Your task to perform on an android device: Clear all items from cart on walmart. Search for dell xps on walmart, select the first entry, and add it to the cart. Image 0: 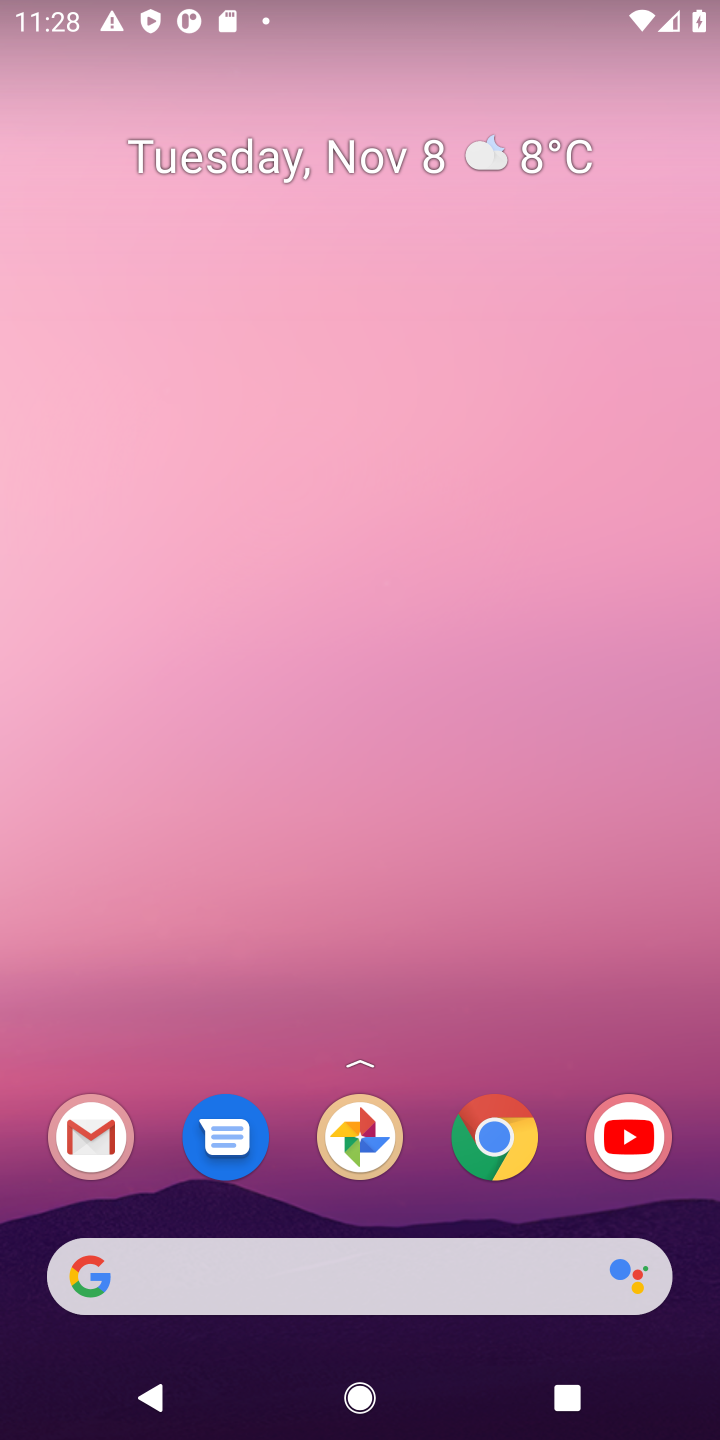
Step 0: click (477, 1129)
Your task to perform on an android device: Clear all items from cart on walmart. Search for dell xps on walmart, select the first entry, and add it to the cart. Image 1: 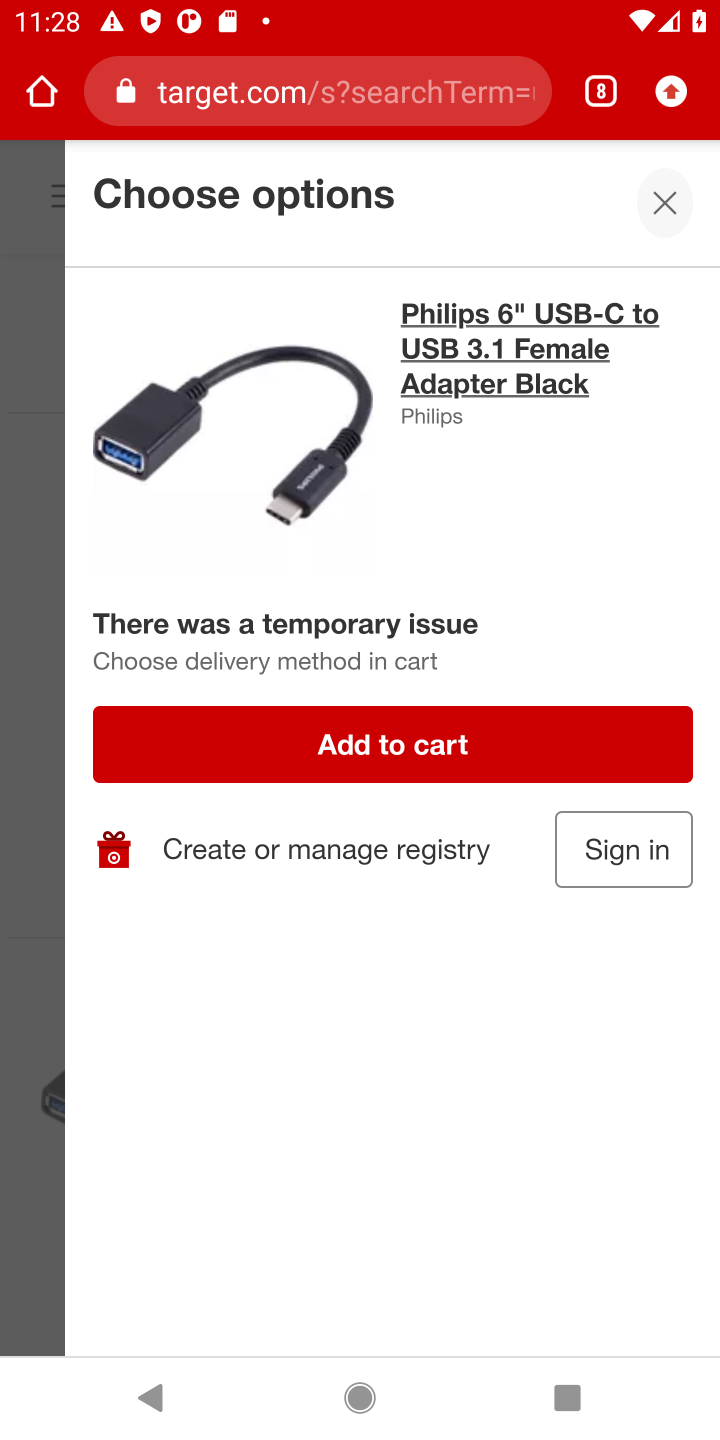
Step 1: click (600, 94)
Your task to perform on an android device: Clear all items from cart on walmart. Search for dell xps on walmart, select the first entry, and add it to the cart. Image 2: 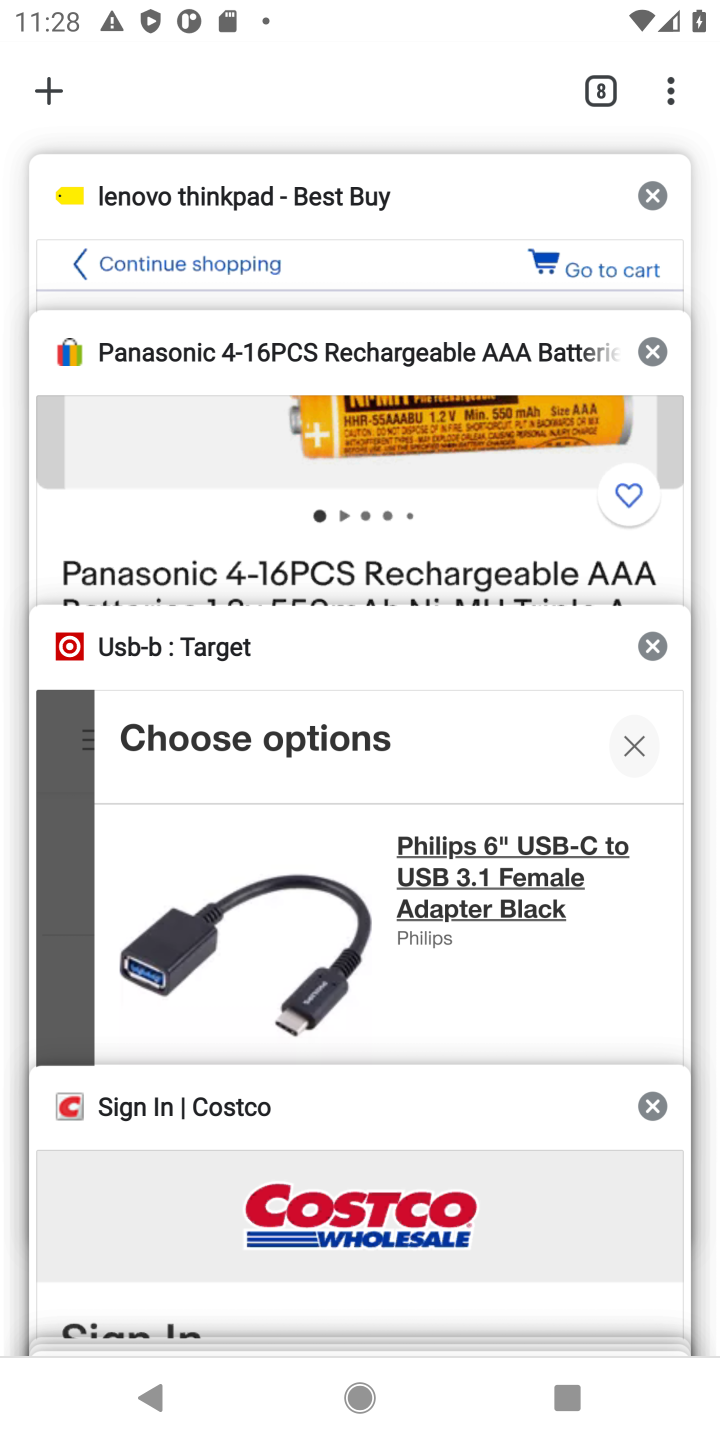
Step 2: drag from (327, 1332) to (436, 789)
Your task to perform on an android device: Clear all items from cart on walmart. Search for dell xps on walmart, select the first entry, and add it to the cart. Image 3: 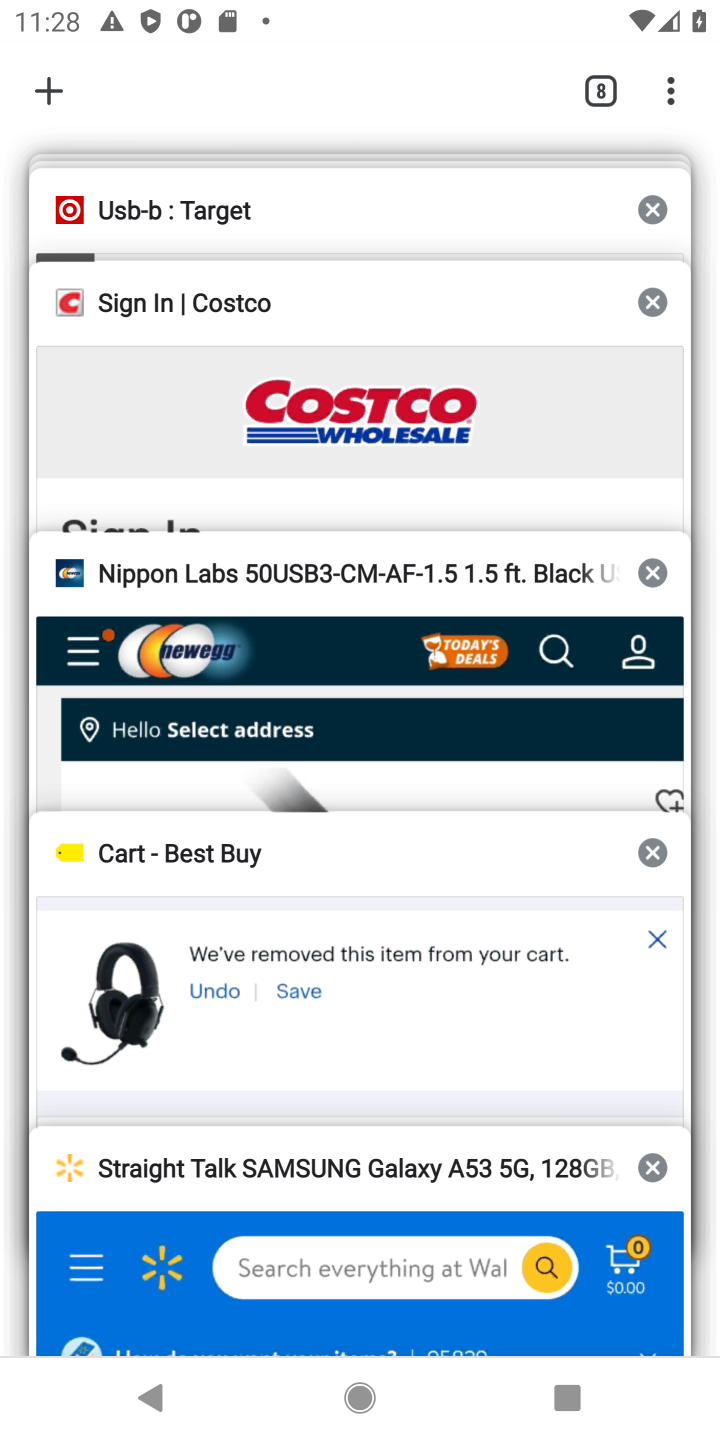
Step 3: click (404, 1215)
Your task to perform on an android device: Clear all items from cart on walmart. Search for dell xps on walmart, select the first entry, and add it to the cart. Image 4: 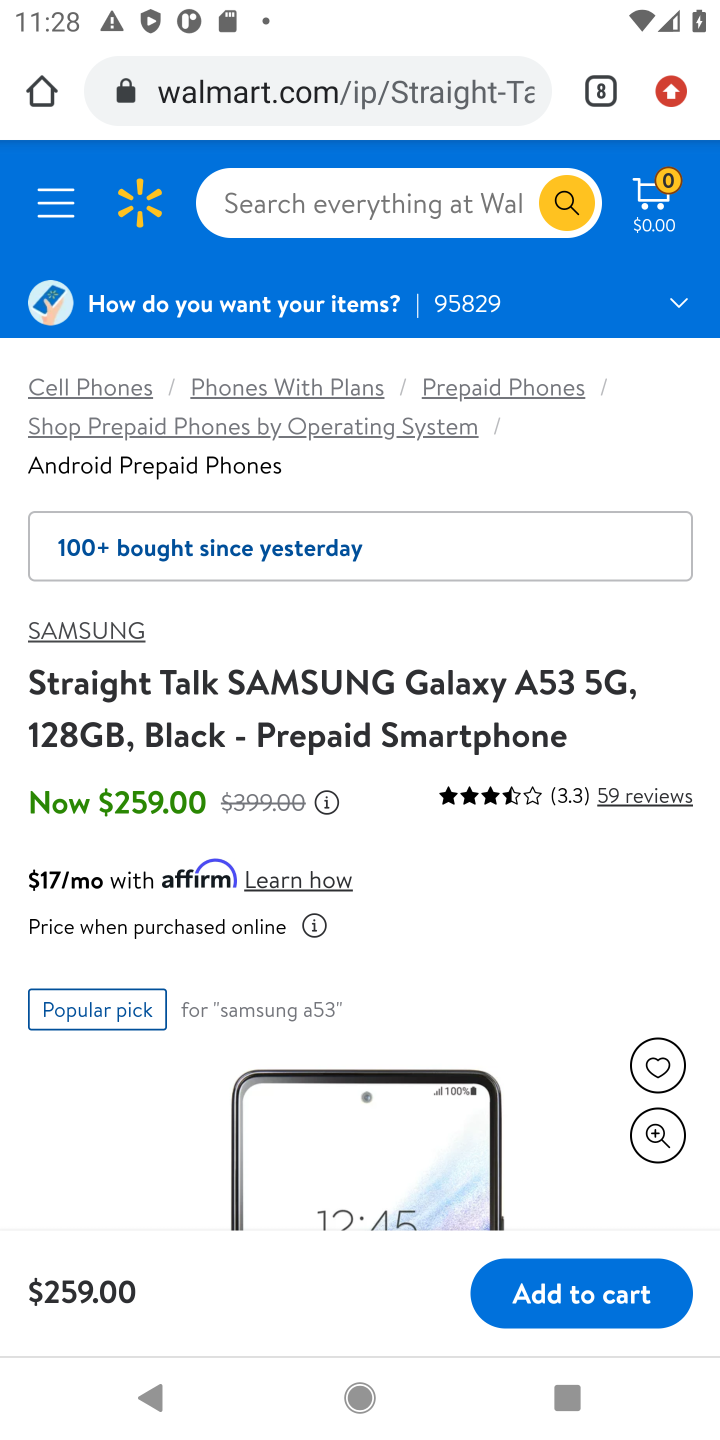
Step 4: click (363, 214)
Your task to perform on an android device: Clear all items from cart on walmart. Search for dell xps on walmart, select the first entry, and add it to the cart. Image 5: 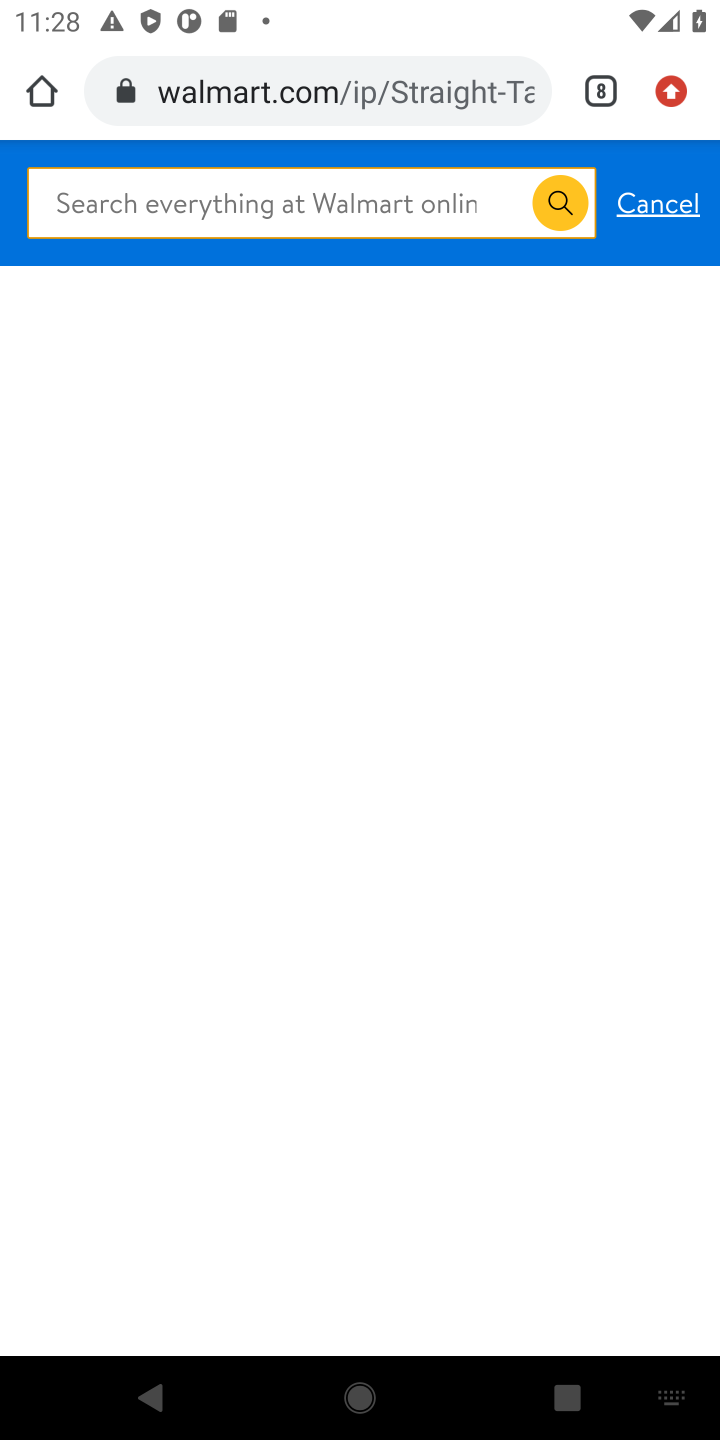
Step 5: type "dell xps"
Your task to perform on an android device: Clear all items from cart on walmart. Search for dell xps on walmart, select the first entry, and add it to the cart. Image 6: 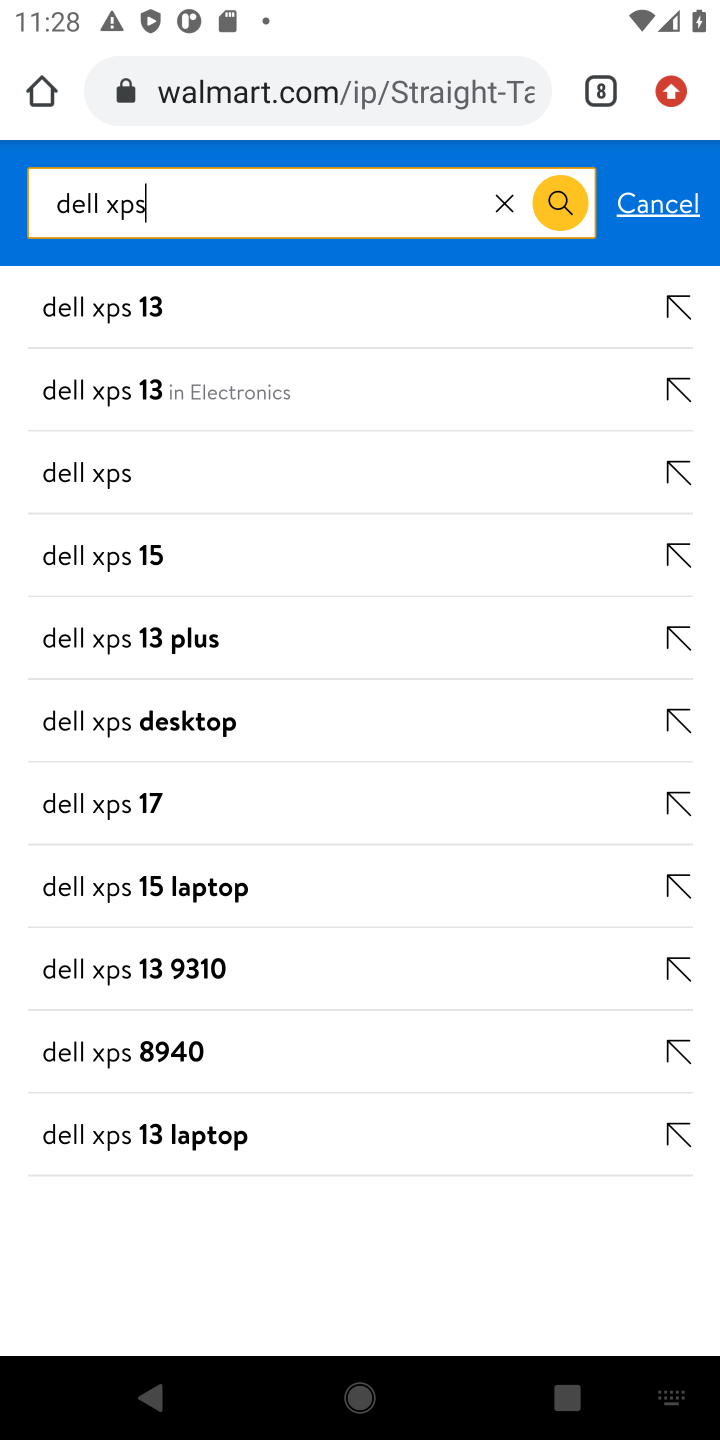
Step 6: click (131, 391)
Your task to perform on an android device: Clear all items from cart on walmart. Search for dell xps on walmart, select the first entry, and add it to the cart. Image 7: 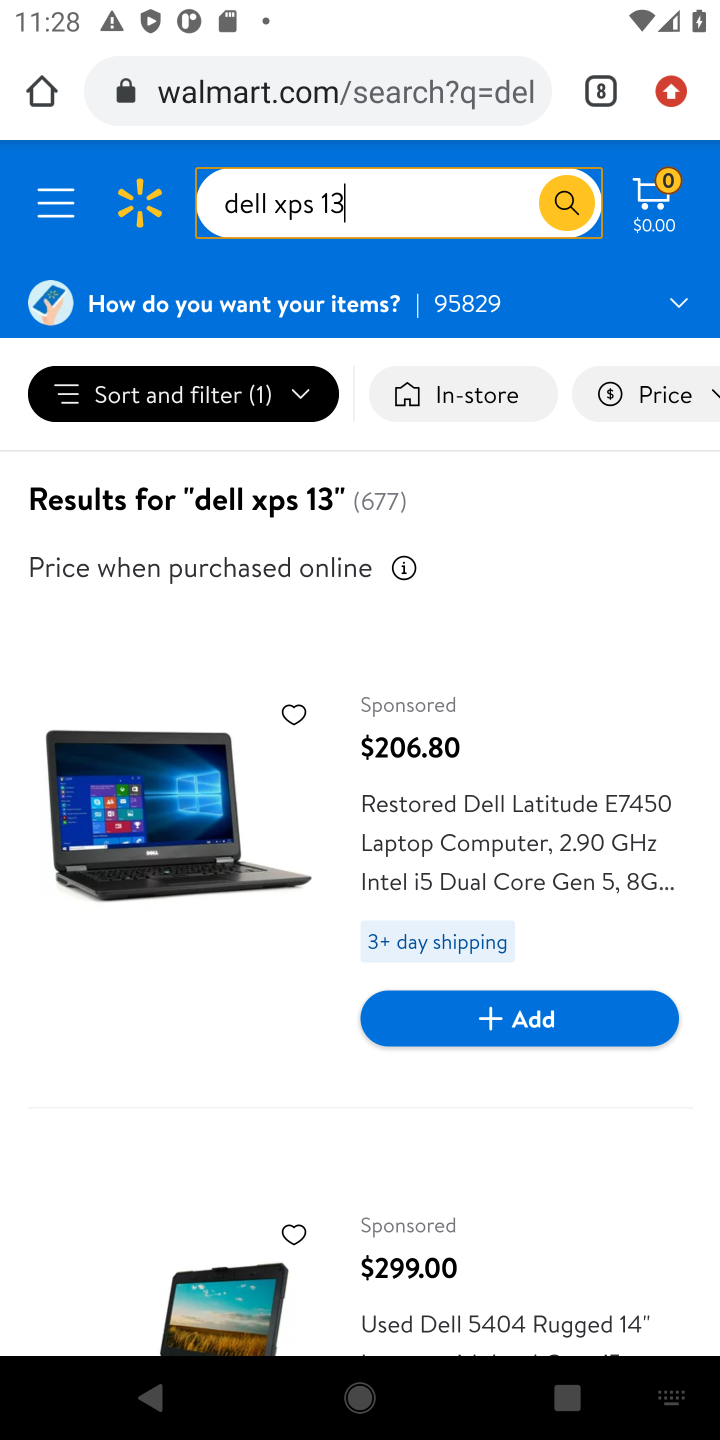
Step 7: drag from (530, 1156) to (604, 454)
Your task to perform on an android device: Clear all items from cart on walmart. Search for dell xps on walmart, select the first entry, and add it to the cart. Image 8: 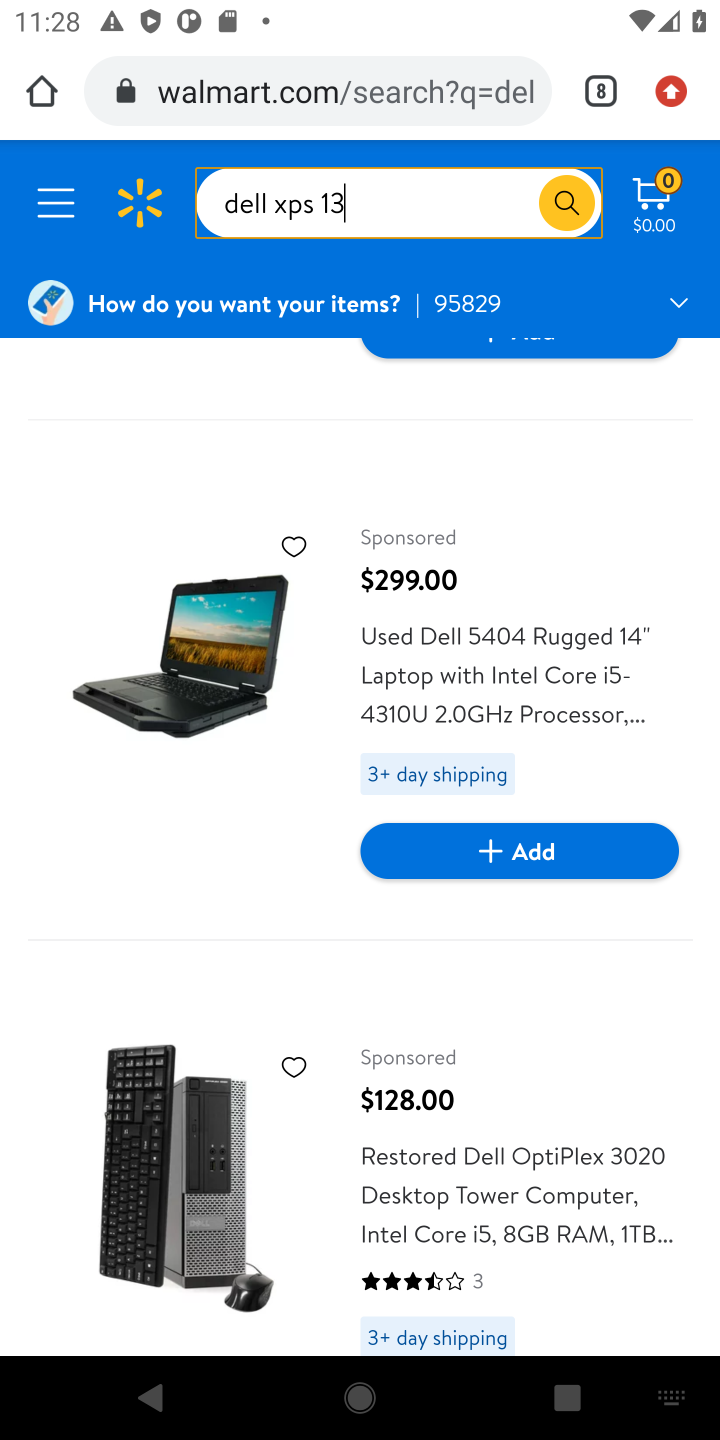
Step 8: drag from (534, 418) to (584, 225)
Your task to perform on an android device: Clear all items from cart on walmart. Search for dell xps on walmart, select the first entry, and add it to the cart. Image 9: 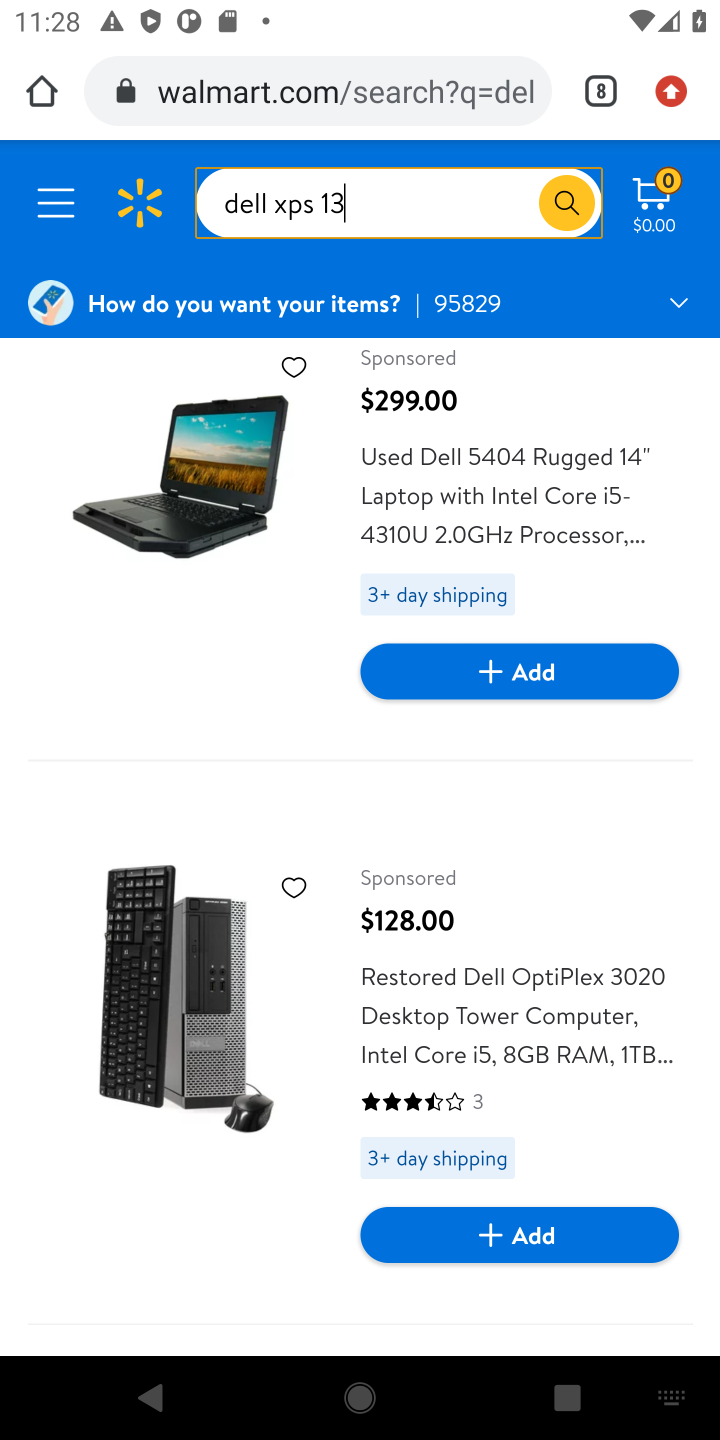
Step 9: drag from (614, 1100) to (628, 372)
Your task to perform on an android device: Clear all items from cart on walmart. Search for dell xps on walmart, select the first entry, and add it to the cart. Image 10: 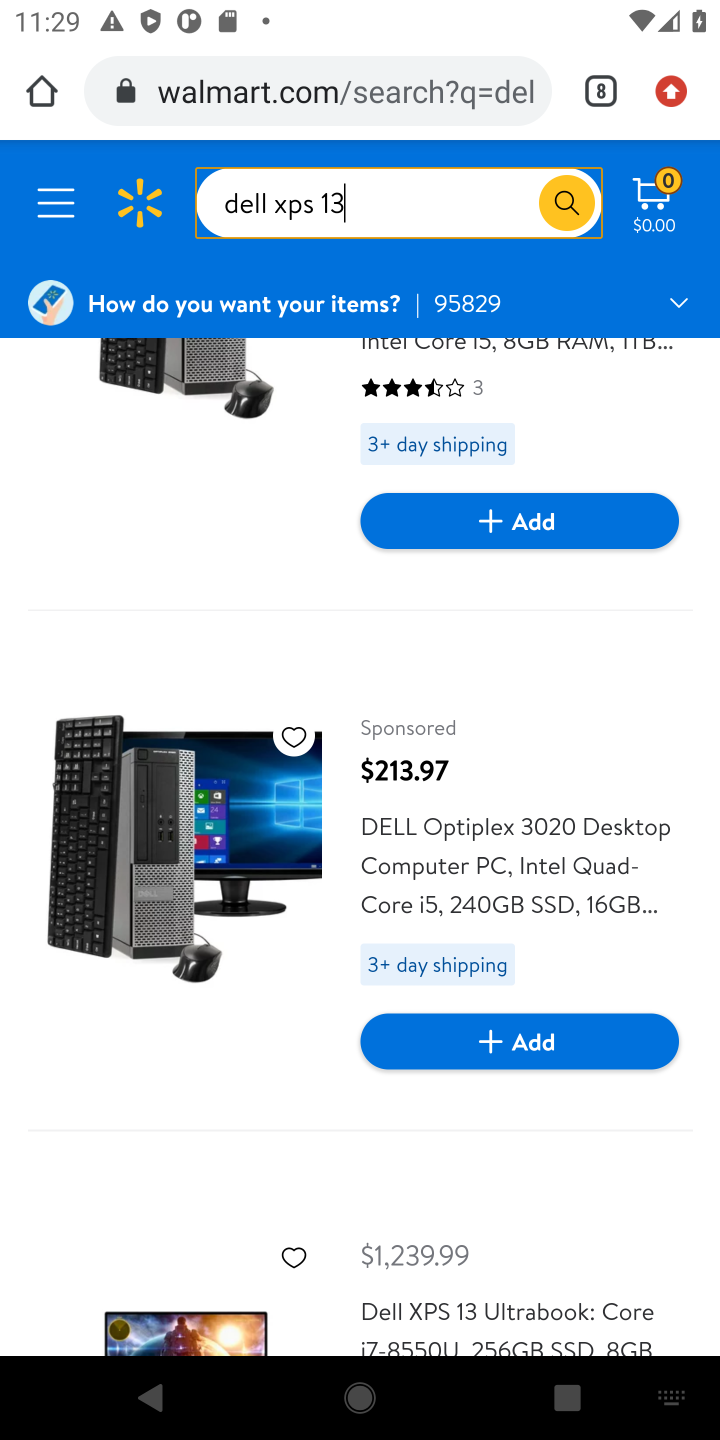
Step 10: drag from (560, 1292) to (656, 564)
Your task to perform on an android device: Clear all items from cart on walmart. Search for dell xps on walmart, select the first entry, and add it to the cart. Image 11: 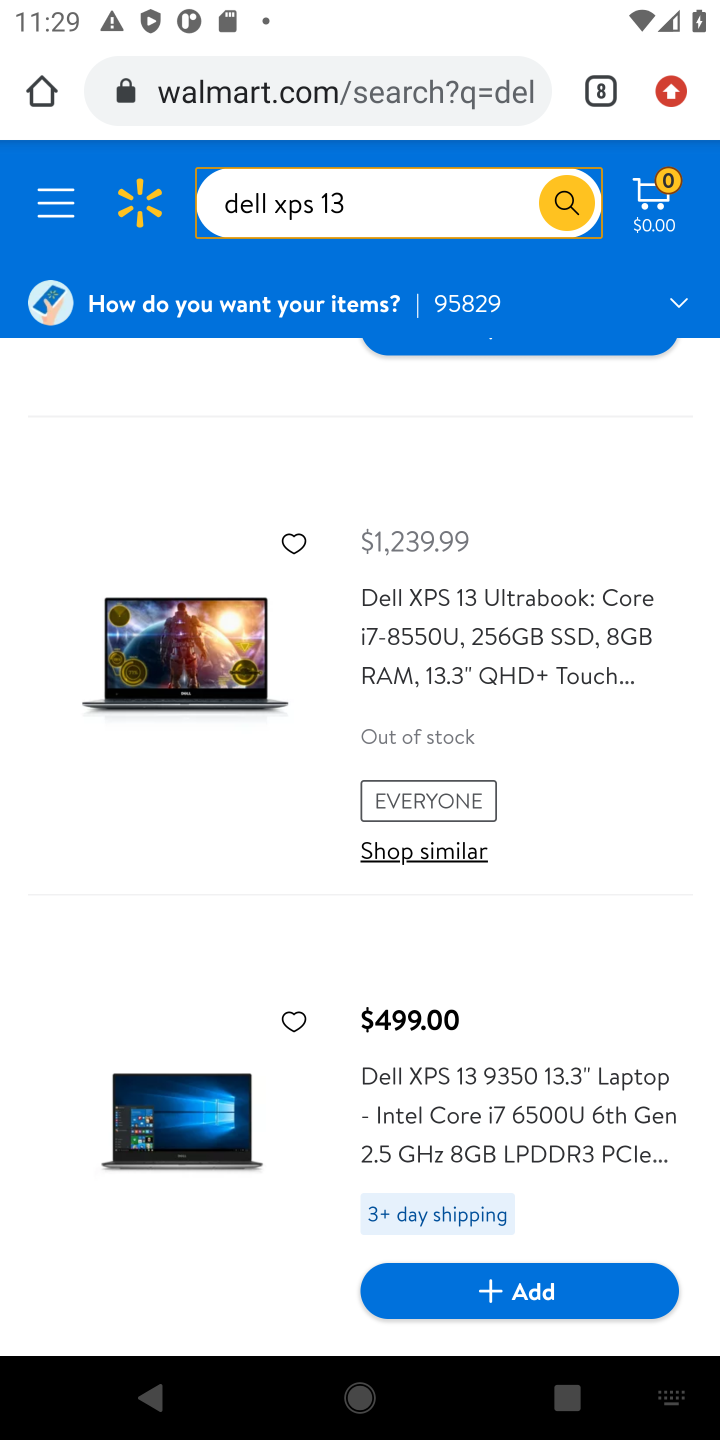
Step 11: click (563, 1295)
Your task to perform on an android device: Clear all items from cart on walmart. Search for dell xps on walmart, select the first entry, and add it to the cart. Image 12: 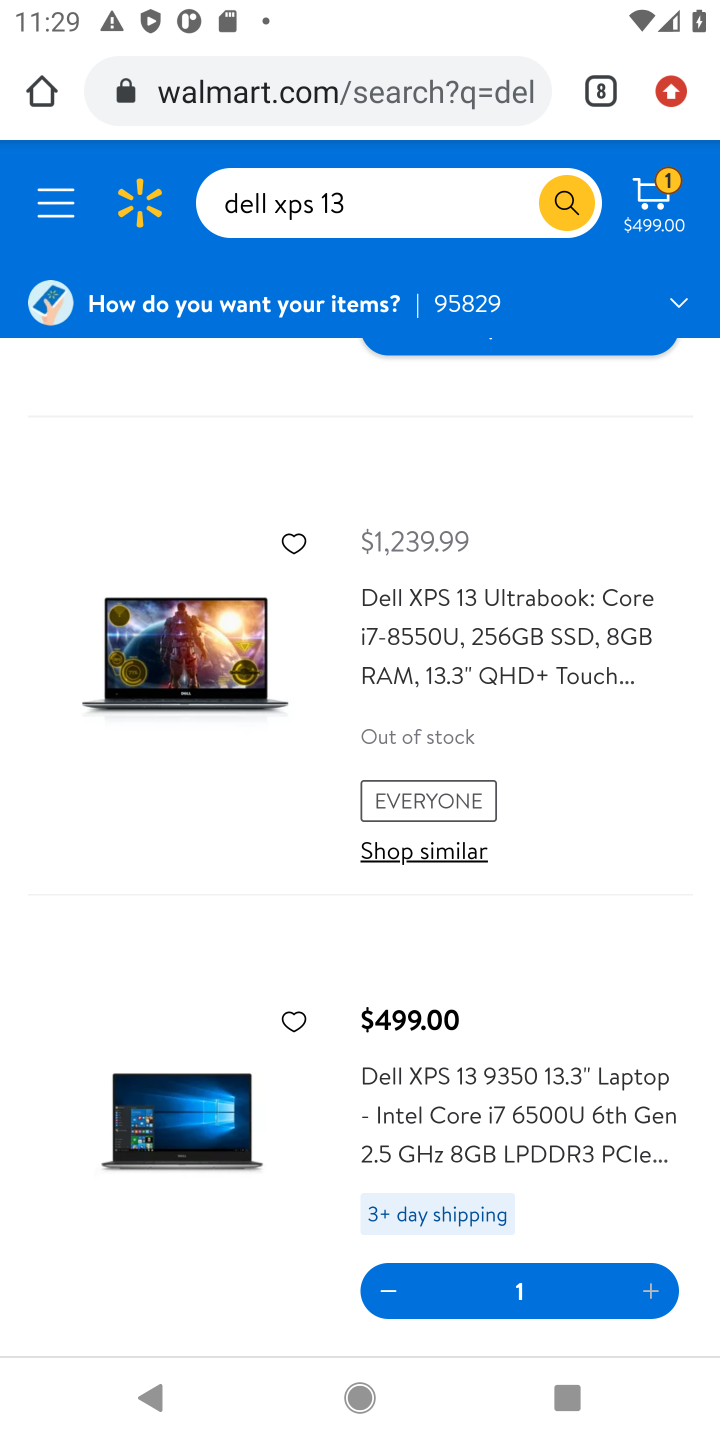
Step 12: task complete